Your task to perform on an android device: Search for pizza restaurants on Maps Image 0: 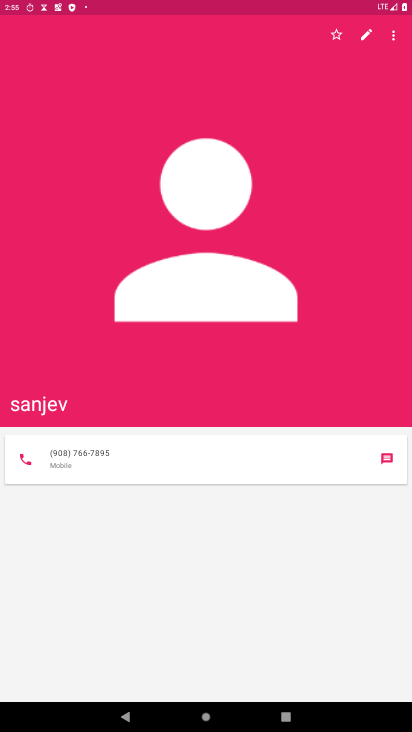
Step 0: press home button
Your task to perform on an android device: Search for pizza restaurants on Maps Image 1: 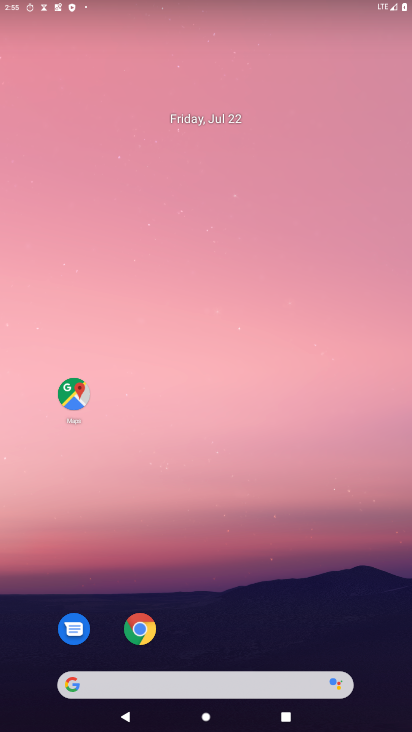
Step 1: drag from (206, 702) to (215, 13)
Your task to perform on an android device: Search for pizza restaurants on Maps Image 2: 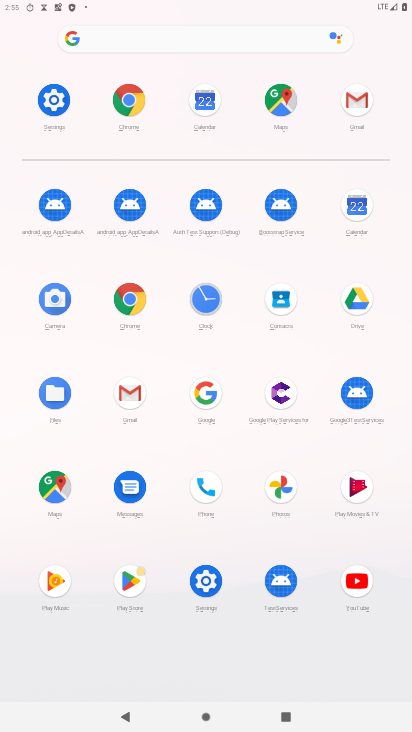
Step 2: click (63, 493)
Your task to perform on an android device: Search for pizza restaurants on Maps Image 3: 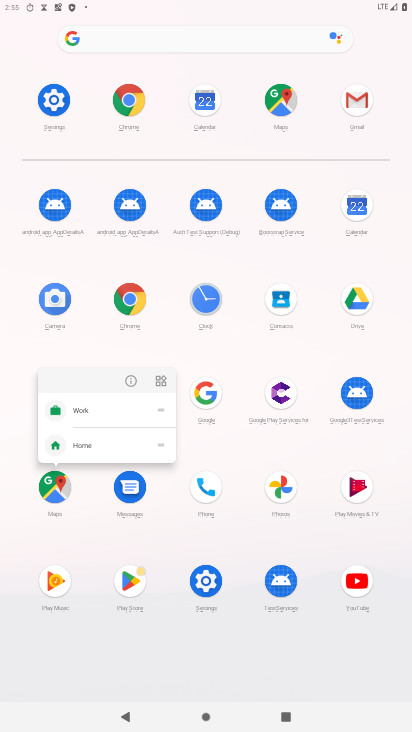
Step 3: click (63, 493)
Your task to perform on an android device: Search for pizza restaurants on Maps Image 4: 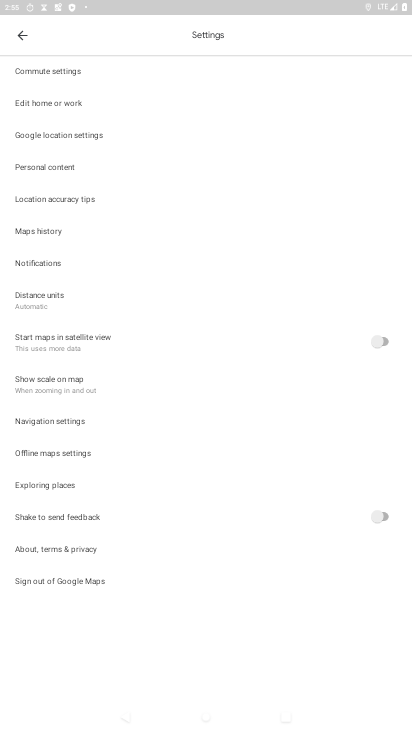
Step 4: press back button
Your task to perform on an android device: Search for pizza restaurants on Maps Image 5: 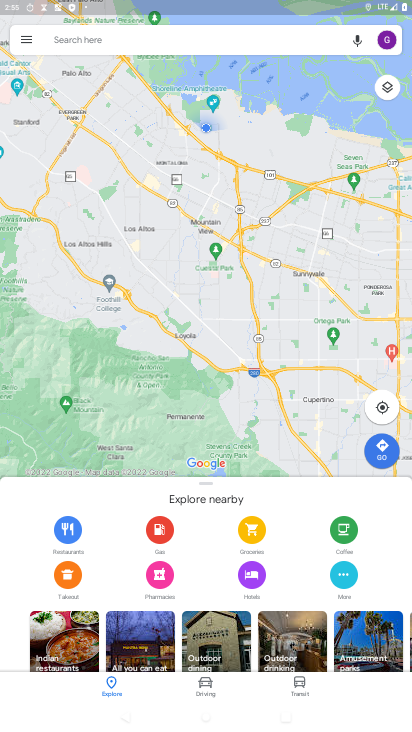
Step 5: click (125, 42)
Your task to perform on an android device: Search for pizza restaurants on Maps Image 6: 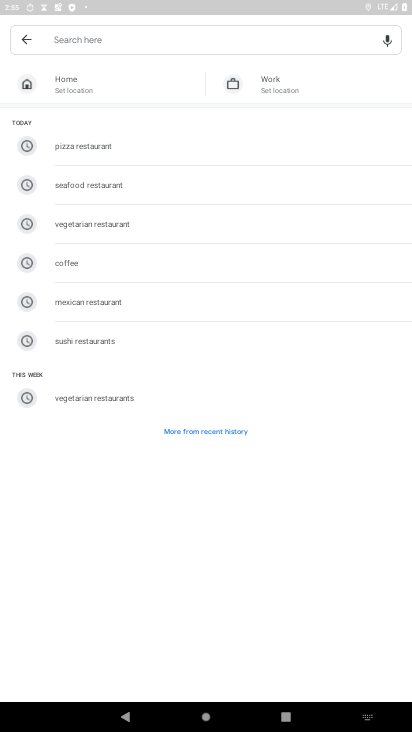
Step 6: click (88, 145)
Your task to perform on an android device: Search for pizza restaurants on Maps Image 7: 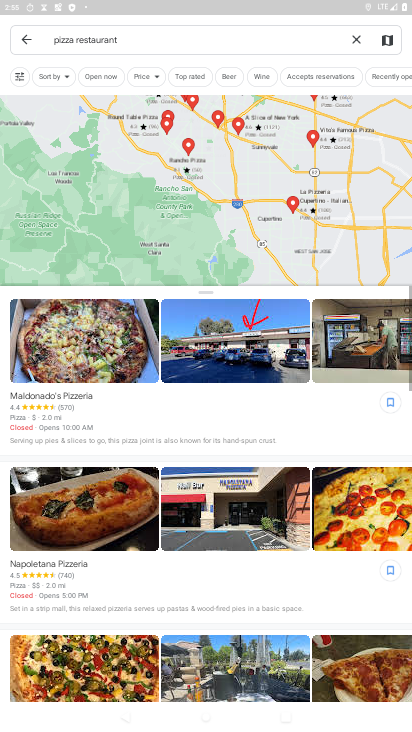
Step 7: task complete